Your task to perform on an android device: Clear all items from cart on bestbuy. Search for "razer blade" on bestbuy, select the first entry, add it to the cart, then select checkout. Image 0: 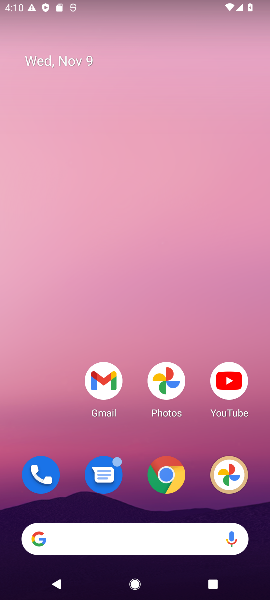
Step 0: drag from (80, 504) to (71, 45)
Your task to perform on an android device: Clear all items from cart on bestbuy. Search for "razer blade" on bestbuy, select the first entry, add it to the cart, then select checkout. Image 1: 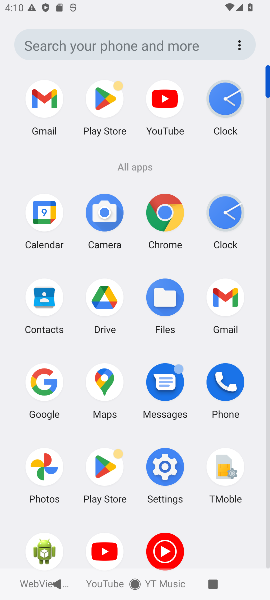
Step 1: click (173, 219)
Your task to perform on an android device: Clear all items from cart on bestbuy. Search for "razer blade" on bestbuy, select the first entry, add it to the cart, then select checkout. Image 2: 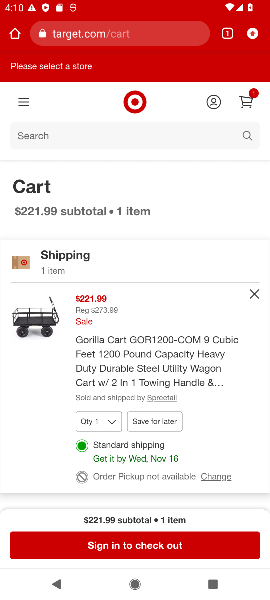
Step 2: click (115, 32)
Your task to perform on an android device: Clear all items from cart on bestbuy. Search for "razer blade" on bestbuy, select the first entry, add it to the cart, then select checkout. Image 3: 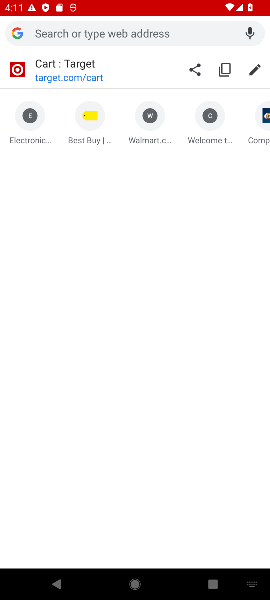
Step 3: click (86, 405)
Your task to perform on an android device: Clear all items from cart on bestbuy. Search for "razer blade" on bestbuy, select the first entry, add it to the cart, then select checkout. Image 4: 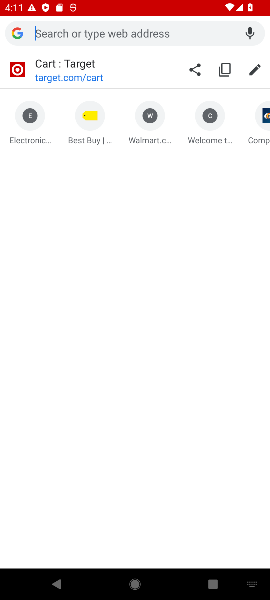
Step 4: type "bestbuy"
Your task to perform on an android device: Clear all items from cart on bestbuy. Search for "razer blade" on bestbuy, select the first entry, add it to the cart, then select checkout. Image 5: 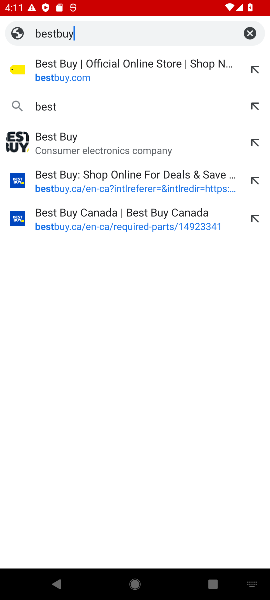
Step 5: press enter
Your task to perform on an android device: Clear all items from cart on bestbuy. Search for "razer blade" on bestbuy, select the first entry, add it to the cart, then select checkout. Image 6: 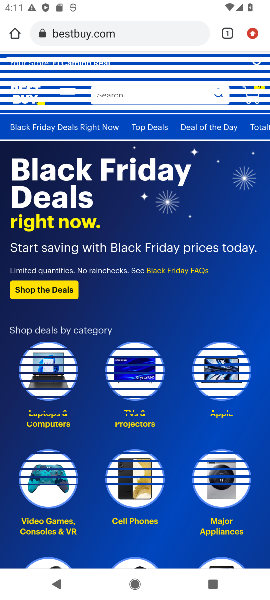
Step 6: click (148, 97)
Your task to perform on an android device: Clear all items from cart on bestbuy. Search for "razer blade" on bestbuy, select the first entry, add it to the cart, then select checkout. Image 7: 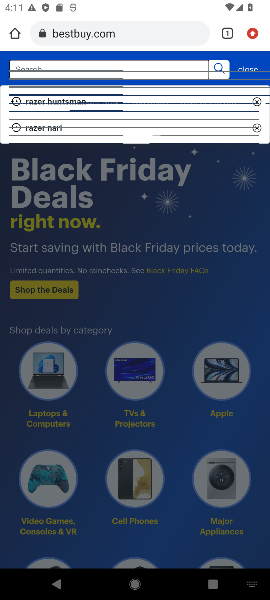
Step 7: click (89, 66)
Your task to perform on an android device: Clear all items from cart on bestbuy. Search for "razer blade" on bestbuy, select the first entry, add it to the cart, then select checkout. Image 8: 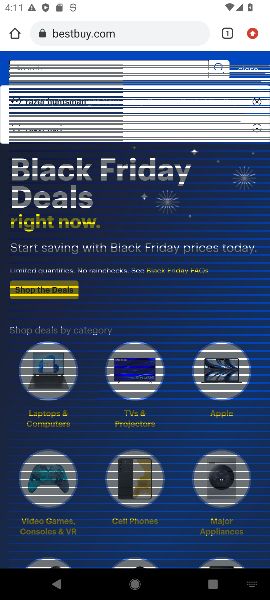
Step 8: click (39, 64)
Your task to perform on an android device: Clear all items from cart on bestbuy. Search for "razer blade" on bestbuy, select the first entry, add it to the cart, then select checkout. Image 9: 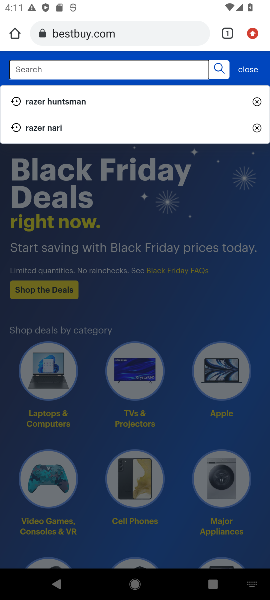
Step 9: click (40, 72)
Your task to perform on an android device: Clear all items from cart on bestbuy. Search for "razer blade" on bestbuy, select the first entry, add it to the cart, then select checkout. Image 10: 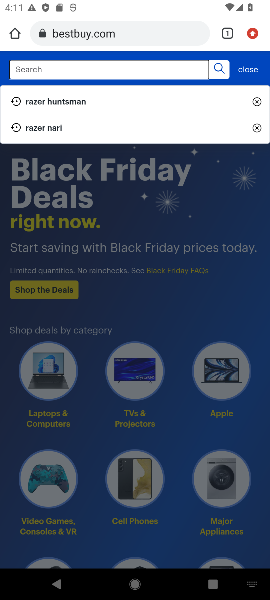
Step 10: click (51, 73)
Your task to perform on an android device: Clear all items from cart on bestbuy. Search for "razer blade" on bestbuy, select the first entry, add it to the cart, then select checkout. Image 11: 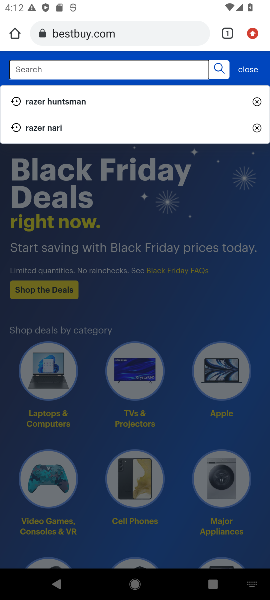
Step 11: type "razer blade"
Your task to perform on an android device: Clear all items from cart on bestbuy. Search for "razer blade" on bestbuy, select the first entry, add it to the cart, then select checkout. Image 12: 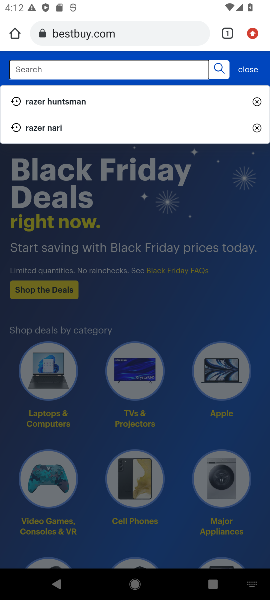
Step 12: press enter
Your task to perform on an android device: Clear all items from cart on bestbuy. Search for "razer blade" on bestbuy, select the first entry, add it to the cart, then select checkout. Image 13: 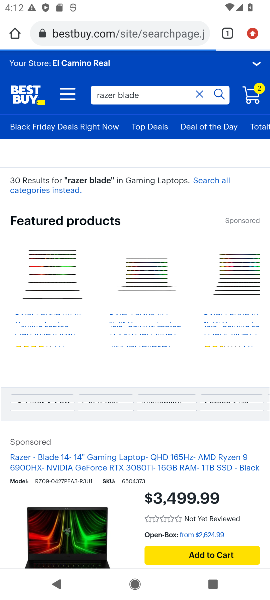
Step 13: click (203, 552)
Your task to perform on an android device: Clear all items from cart on bestbuy. Search for "razer blade" on bestbuy, select the first entry, add it to the cart, then select checkout. Image 14: 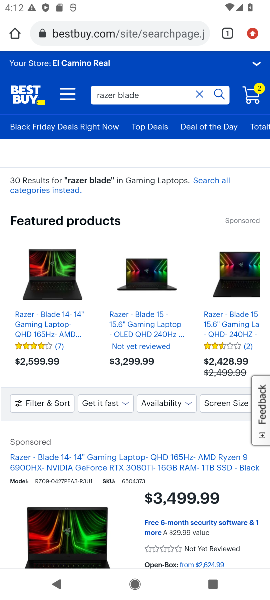
Step 14: click (250, 95)
Your task to perform on an android device: Clear all items from cart on bestbuy. Search for "razer blade" on bestbuy, select the first entry, add it to the cart, then select checkout. Image 15: 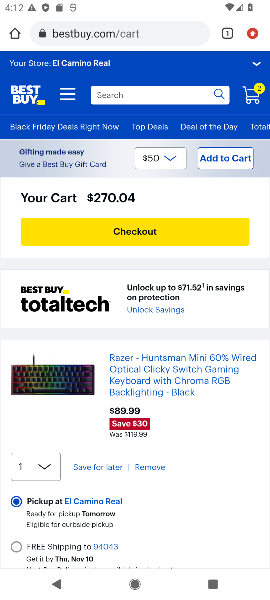
Step 15: click (144, 471)
Your task to perform on an android device: Clear all items from cart on bestbuy. Search for "razer blade" on bestbuy, select the first entry, add it to the cart, then select checkout. Image 16: 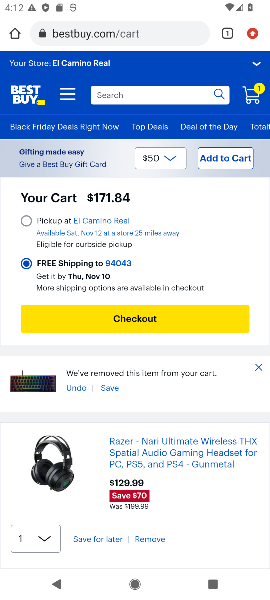
Step 16: click (149, 544)
Your task to perform on an android device: Clear all items from cart on bestbuy. Search for "razer blade" on bestbuy, select the first entry, add it to the cart, then select checkout. Image 17: 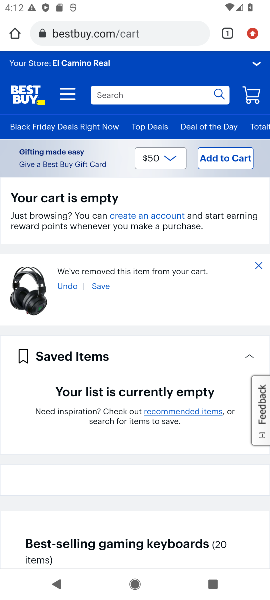
Step 17: click (146, 92)
Your task to perform on an android device: Clear all items from cart on bestbuy. Search for "razer blade" on bestbuy, select the first entry, add it to the cart, then select checkout. Image 18: 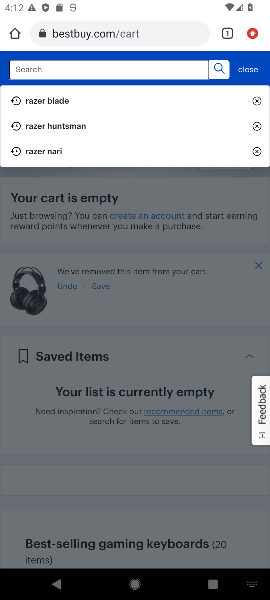
Step 18: click (84, 62)
Your task to perform on an android device: Clear all items from cart on bestbuy. Search for "razer blade" on bestbuy, select the first entry, add it to the cart, then select checkout. Image 19: 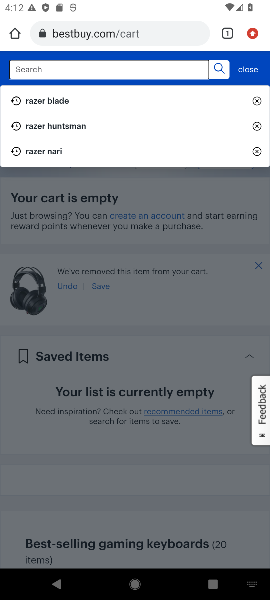
Step 19: type "razer blade"
Your task to perform on an android device: Clear all items from cart on bestbuy. Search for "razer blade" on bestbuy, select the first entry, add it to the cart, then select checkout. Image 20: 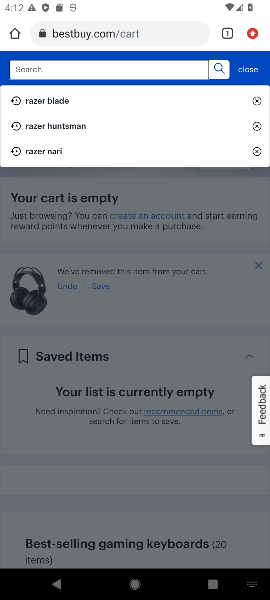
Step 20: press enter
Your task to perform on an android device: Clear all items from cart on bestbuy. Search for "razer blade" on bestbuy, select the first entry, add it to the cart, then select checkout. Image 21: 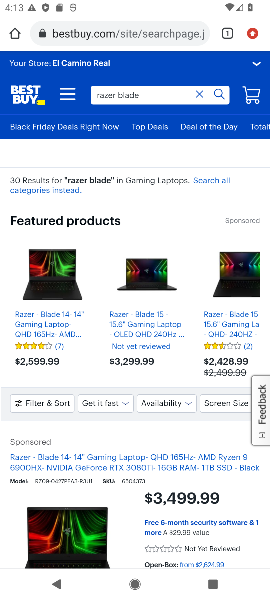
Step 21: drag from (142, 507) to (128, 274)
Your task to perform on an android device: Clear all items from cart on bestbuy. Search for "razer blade" on bestbuy, select the first entry, add it to the cart, then select checkout. Image 22: 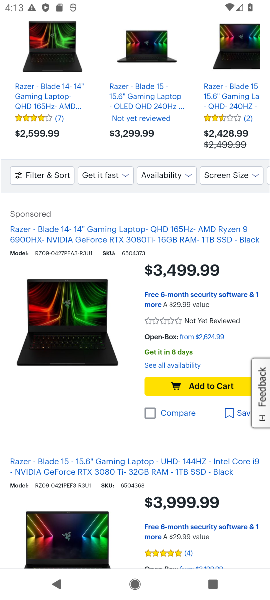
Step 22: click (192, 383)
Your task to perform on an android device: Clear all items from cart on bestbuy. Search for "razer blade" on bestbuy, select the first entry, add it to the cart, then select checkout. Image 23: 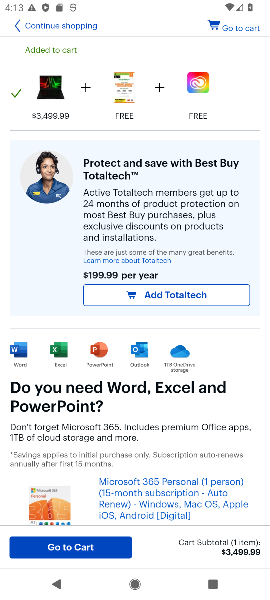
Step 23: click (59, 551)
Your task to perform on an android device: Clear all items from cart on bestbuy. Search for "razer blade" on bestbuy, select the first entry, add it to the cart, then select checkout. Image 24: 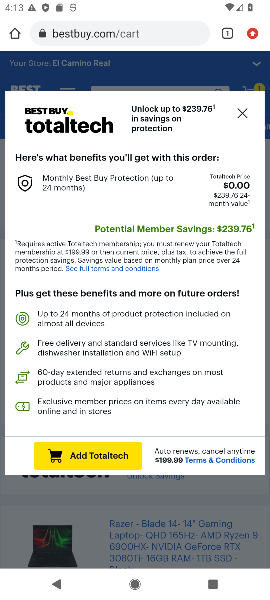
Step 24: click (239, 113)
Your task to perform on an android device: Clear all items from cart on bestbuy. Search for "razer blade" on bestbuy, select the first entry, add it to the cart, then select checkout. Image 25: 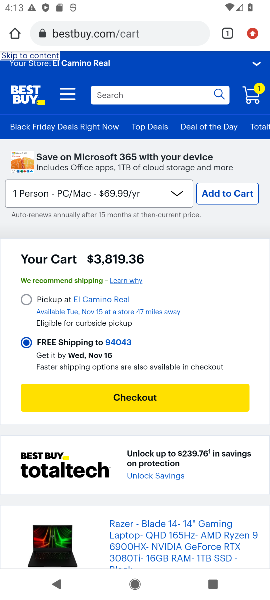
Step 25: click (130, 394)
Your task to perform on an android device: Clear all items from cart on bestbuy. Search for "razer blade" on bestbuy, select the first entry, add it to the cart, then select checkout. Image 26: 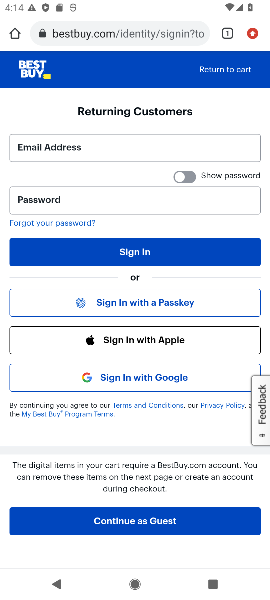
Step 26: task complete